Your task to perform on an android device: Do I have any events tomorrow? Image 0: 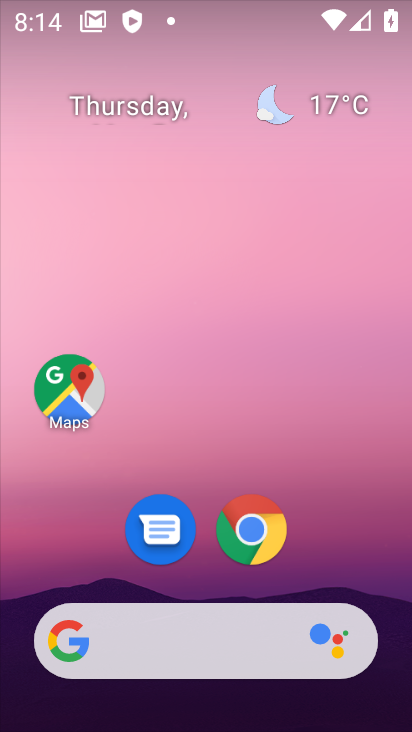
Step 0: drag from (367, 522) to (271, 10)
Your task to perform on an android device: Do I have any events tomorrow? Image 1: 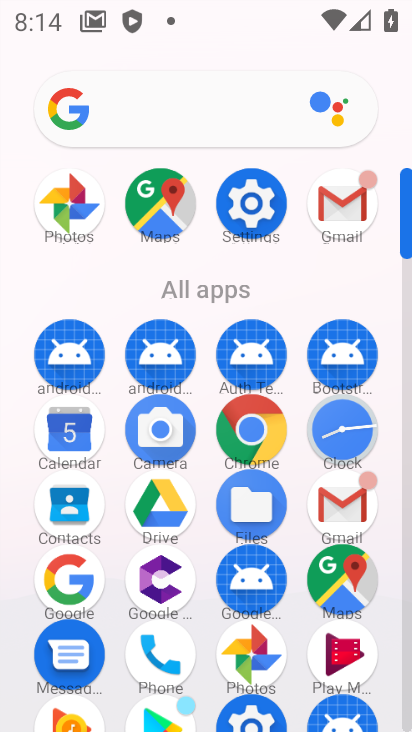
Step 1: click (80, 429)
Your task to perform on an android device: Do I have any events tomorrow? Image 2: 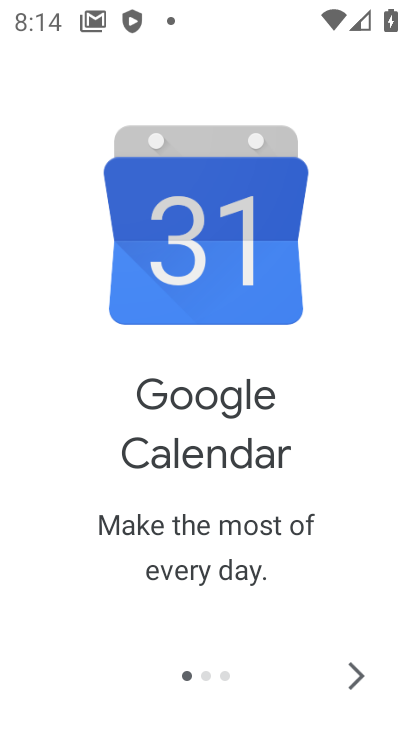
Step 2: click (358, 670)
Your task to perform on an android device: Do I have any events tomorrow? Image 3: 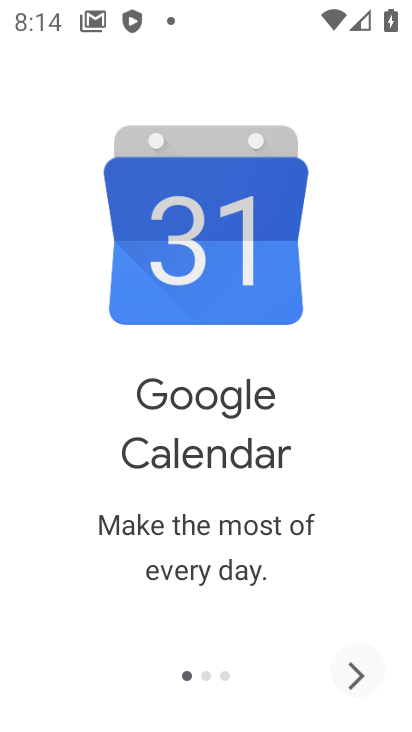
Step 3: click (358, 670)
Your task to perform on an android device: Do I have any events tomorrow? Image 4: 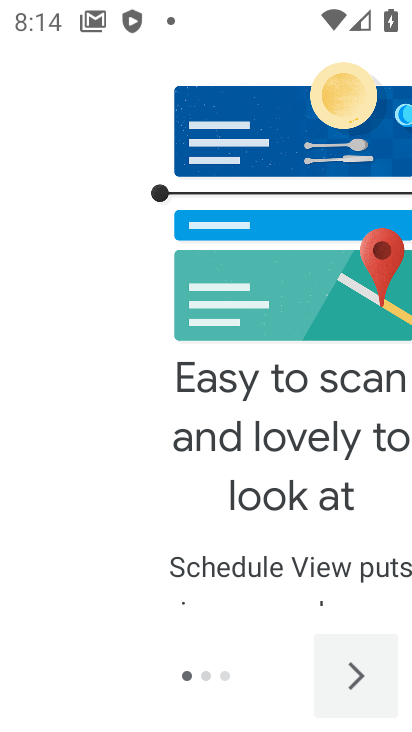
Step 4: click (358, 670)
Your task to perform on an android device: Do I have any events tomorrow? Image 5: 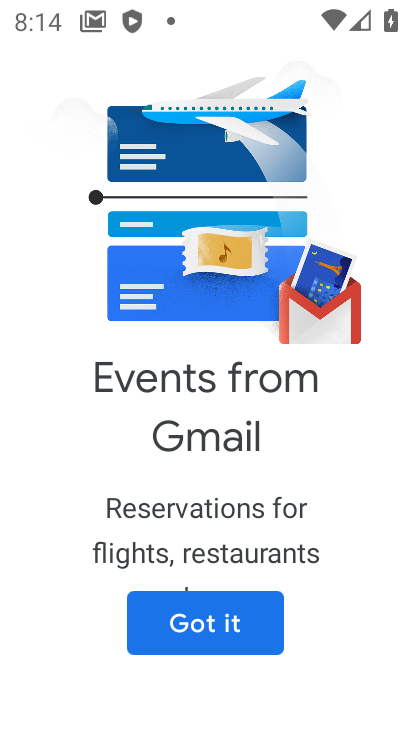
Step 5: click (252, 617)
Your task to perform on an android device: Do I have any events tomorrow? Image 6: 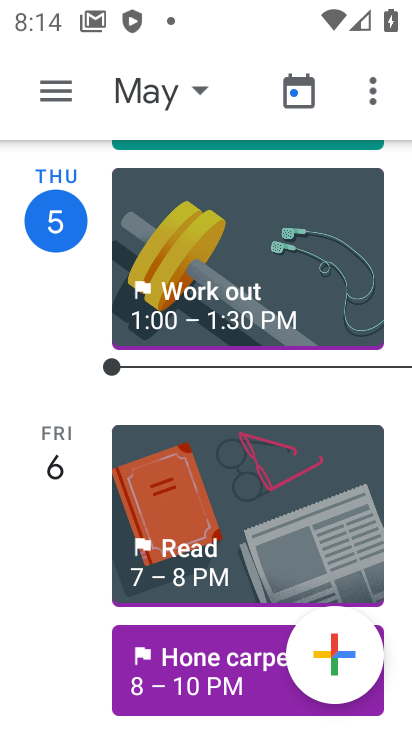
Step 6: click (199, 94)
Your task to perform on an android device: Do I have any events tomorrow? Image 7: 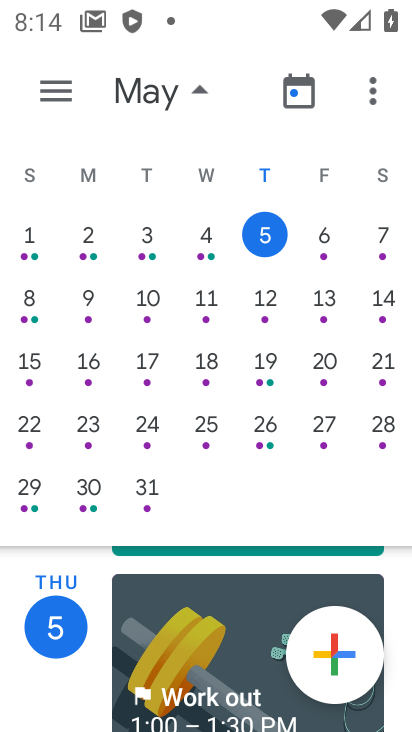
Step 7: click (323, 241)
Your task to perform on an android device: Do I have any events tomorrow? Image 8: 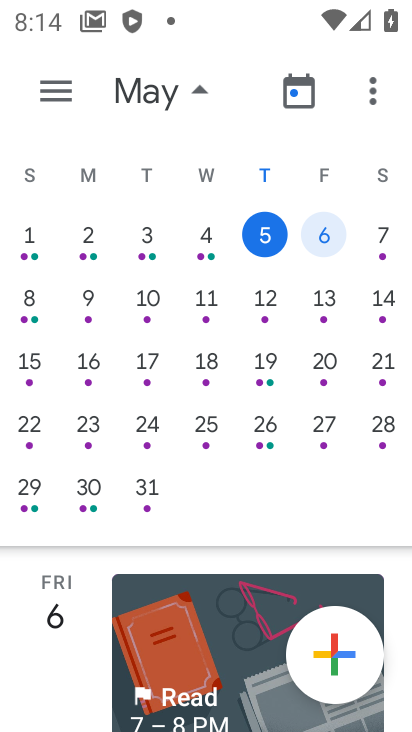
Step 8: task complete